Your task to perform on an android device: Open calendar and show me the first week of next month Image 0: 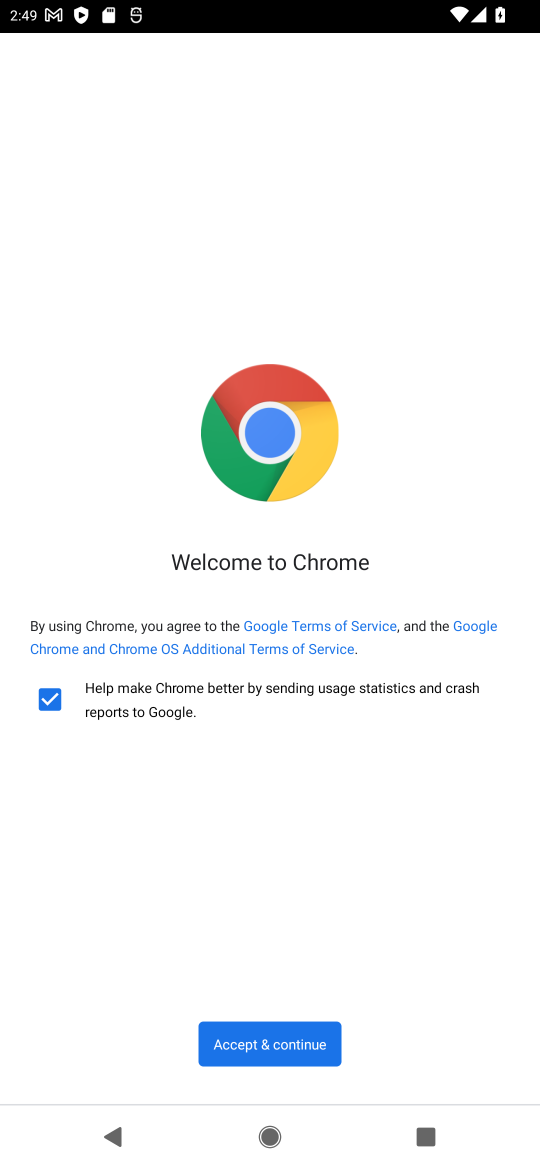
Step 0: click (350, 484)
Your task to perform on an android device: Open calendar and show me the first week of next month Image 1: 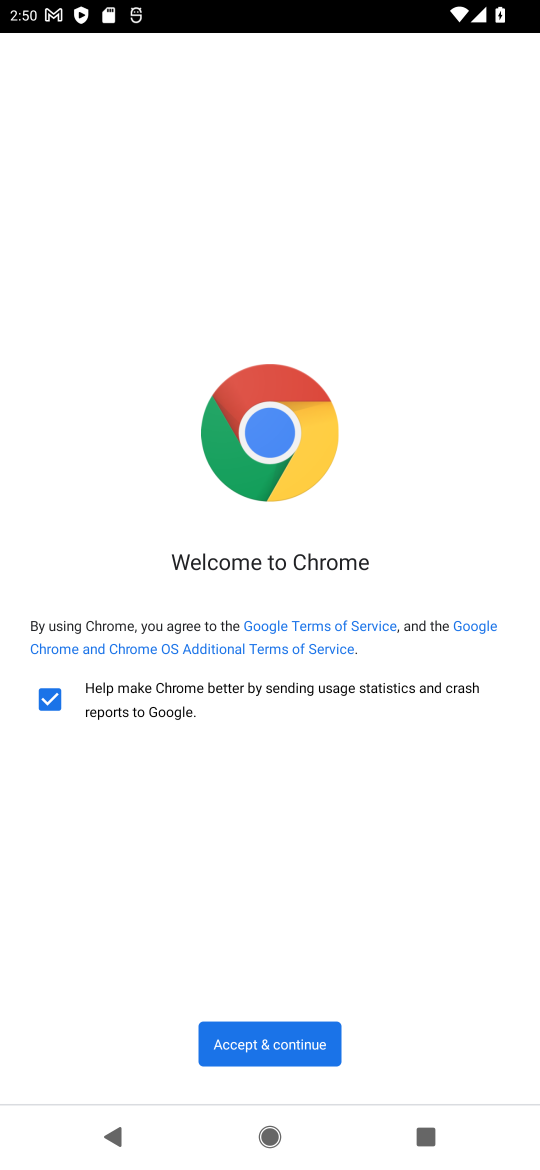
Step 1: click (243, 1046)
Your task to perform on an android device: Open calendar and show me the first week of next month Image 2: 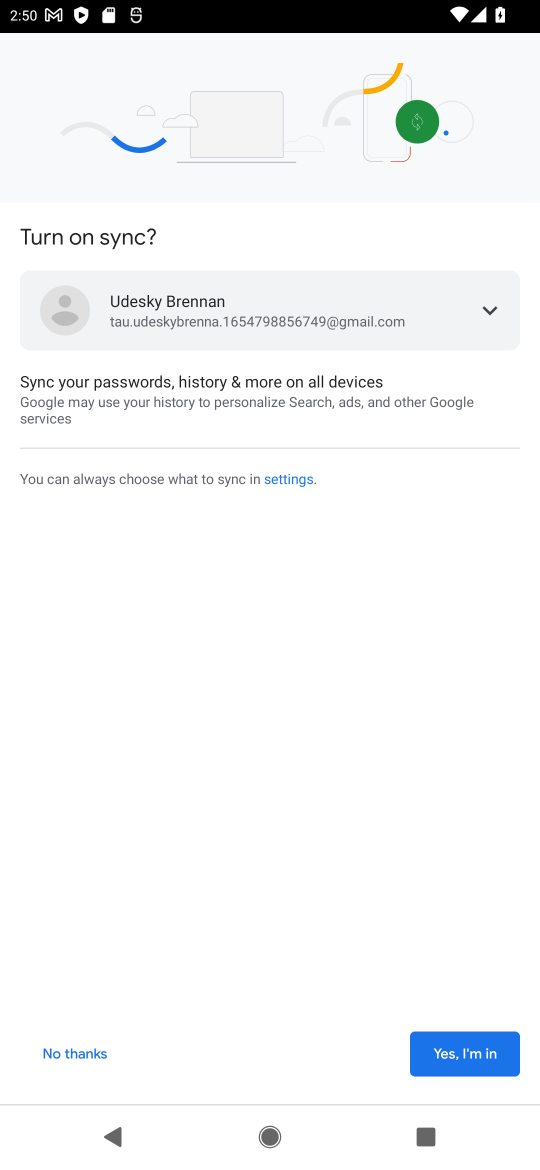
Step 2: press home button
Your task to perform on an android device: Open calendar and show me the first week of next month Image 3: 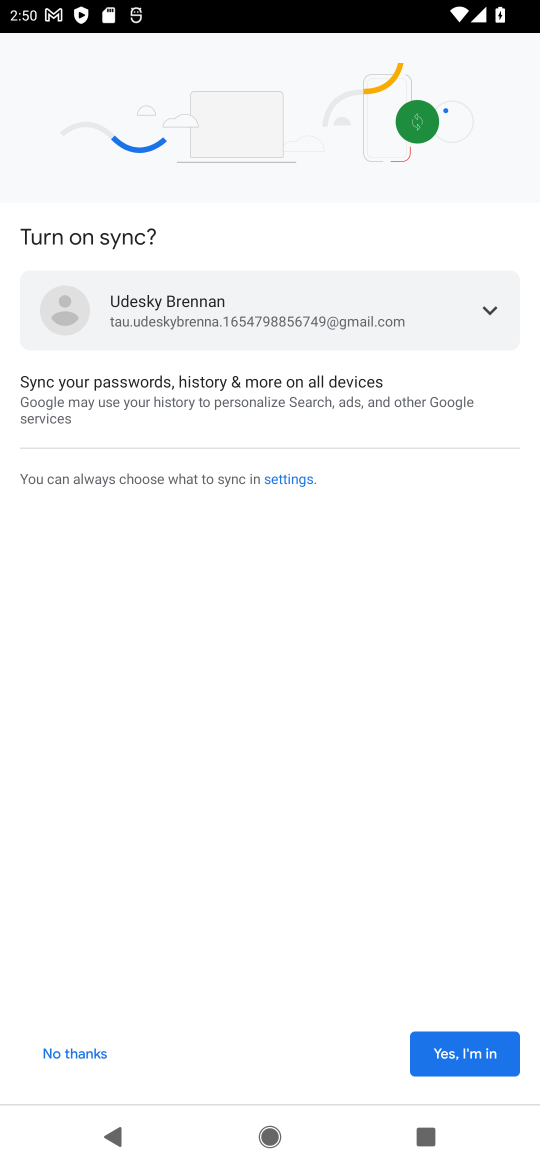
Step 3: press home button
Your task to perform on an android device: Open calendar and show me the first week of next month Image 4: 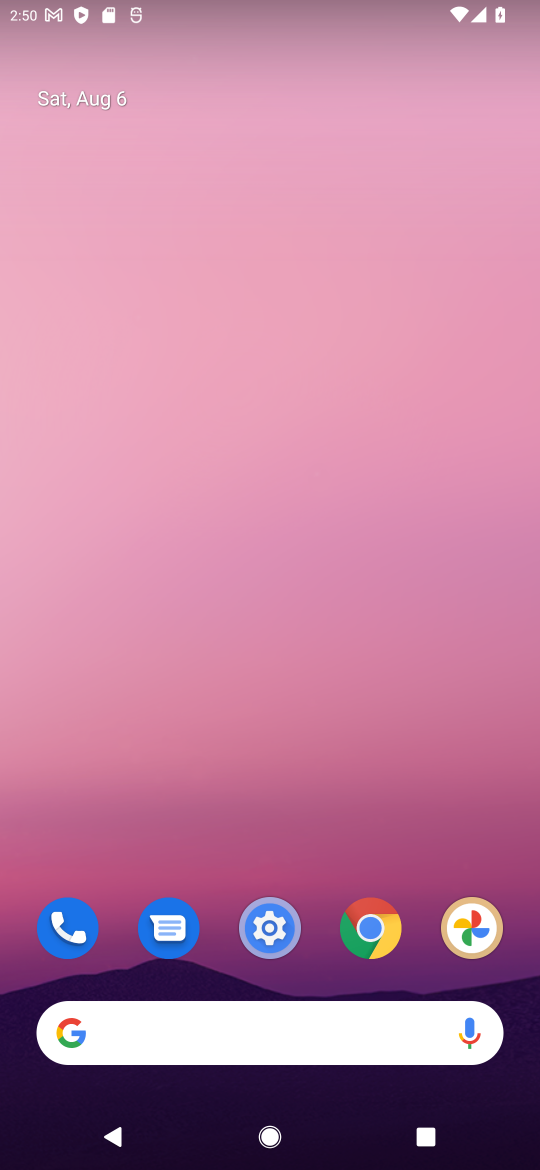
Step 4: drag from (229, 970) to (226, 223)
Your task to perform on an android device: Open calendar and show me the first week of next month Image 5: 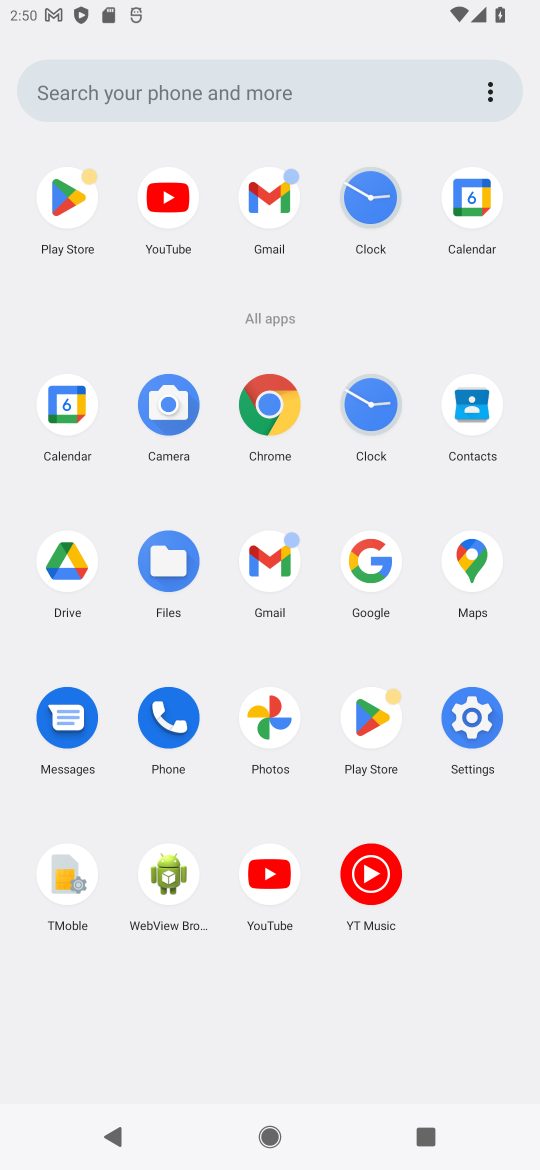
Step 5: click (74, 397)
Your task to perform on an android device: Open calendar and show me the first week of next month Image 6: 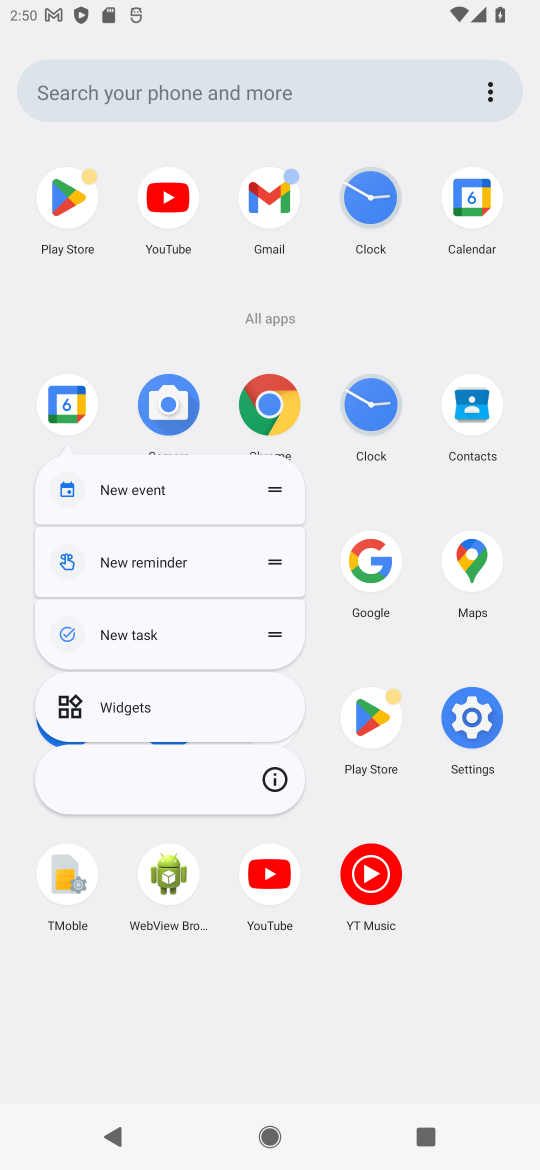
Step 6: click (269, 776)
Your task to perform on an android device: Open calendar and show me the first week of next month Image 7: 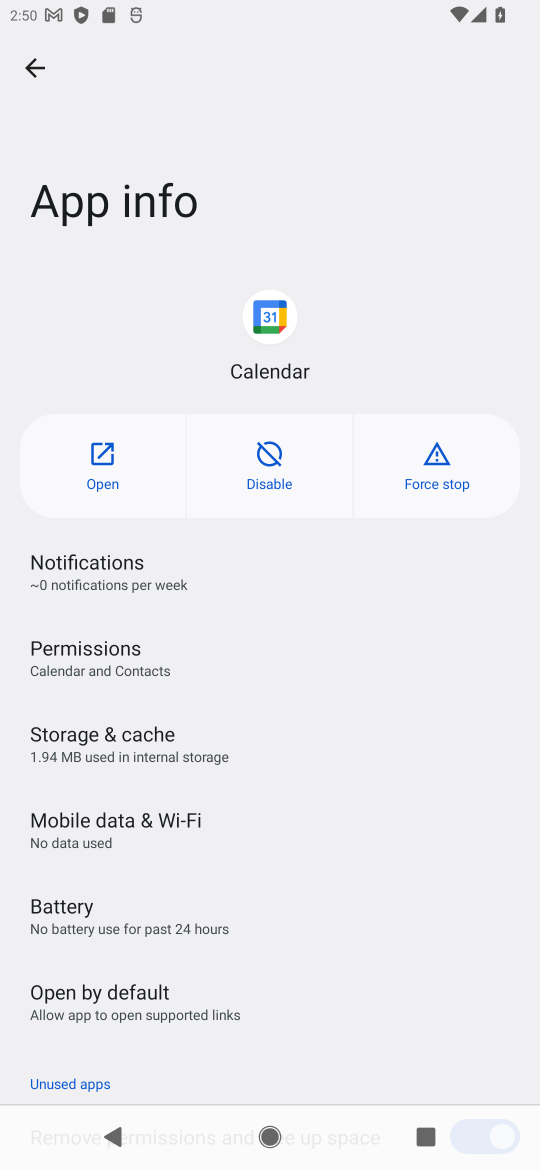
Step 7: click (102, 447)
Your task to perform on an android device: Open calendar and show me the first week of next month Image 8: 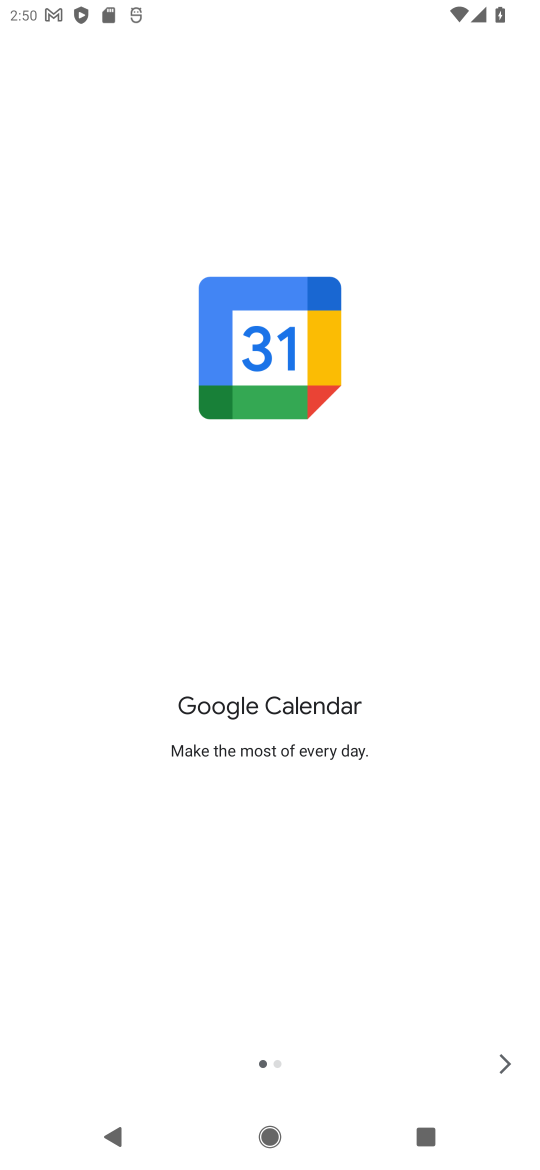
Step 8: drag from (301, 888) to (420, 395)
Your task to perform on an android device: Open calendar and show me the first week of next month Image 9: 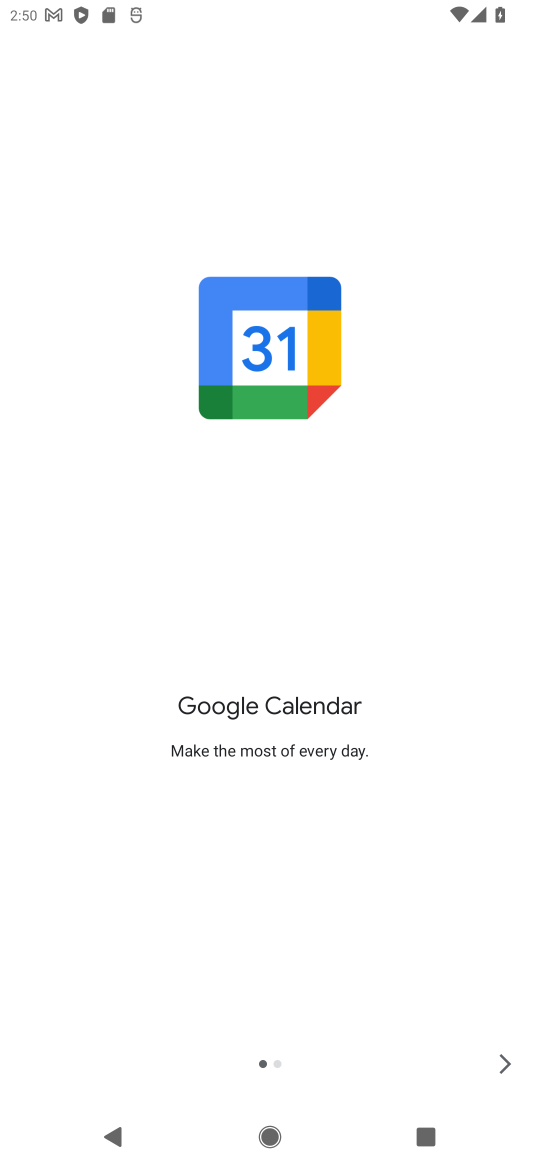
Step 9: drag from (327, 797) to (357, 468)
Your task to perform on an android device: Open calendar and show me the first week of next month Image 10: 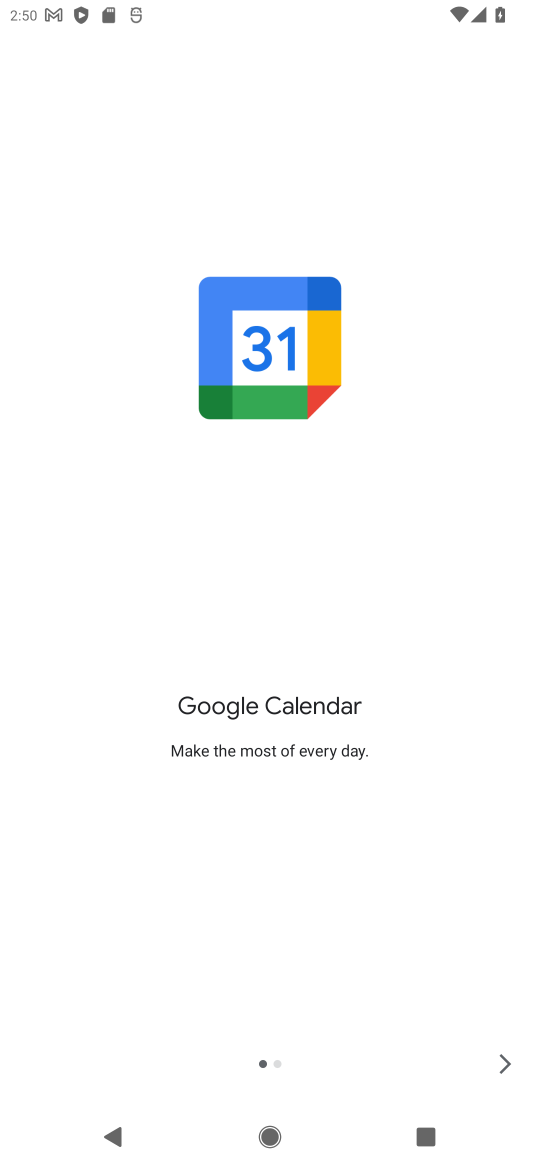
Step 10: click (507, 1045)
Your task to perform on an android device: Open calendar and show me the first week of next month Image 11: 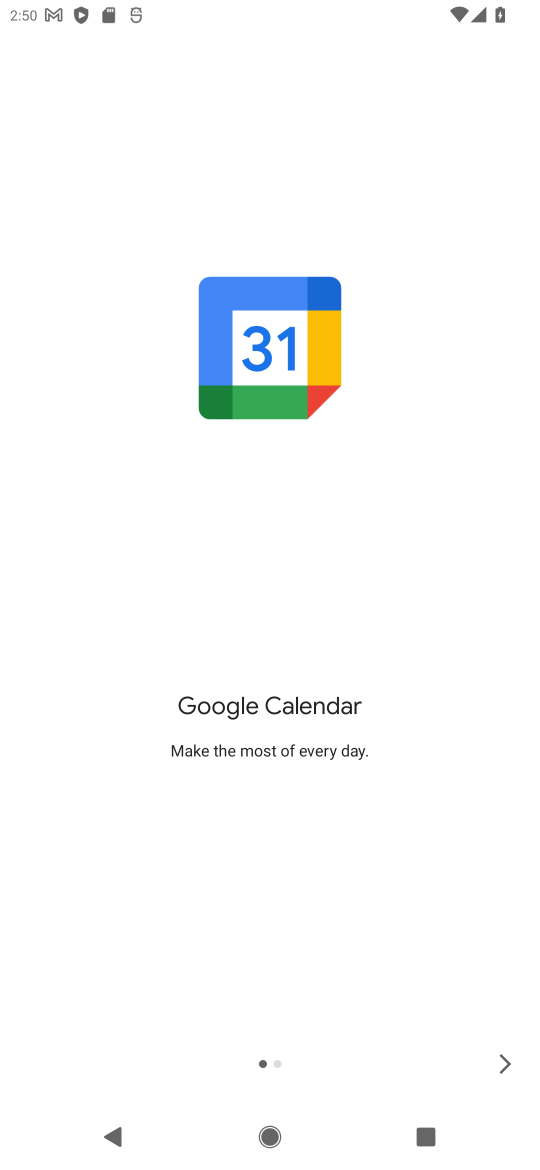
Step 11: click (504, 1048)
Your task to perform on an android device: Open calendar and show me the first week of next month Image 12: 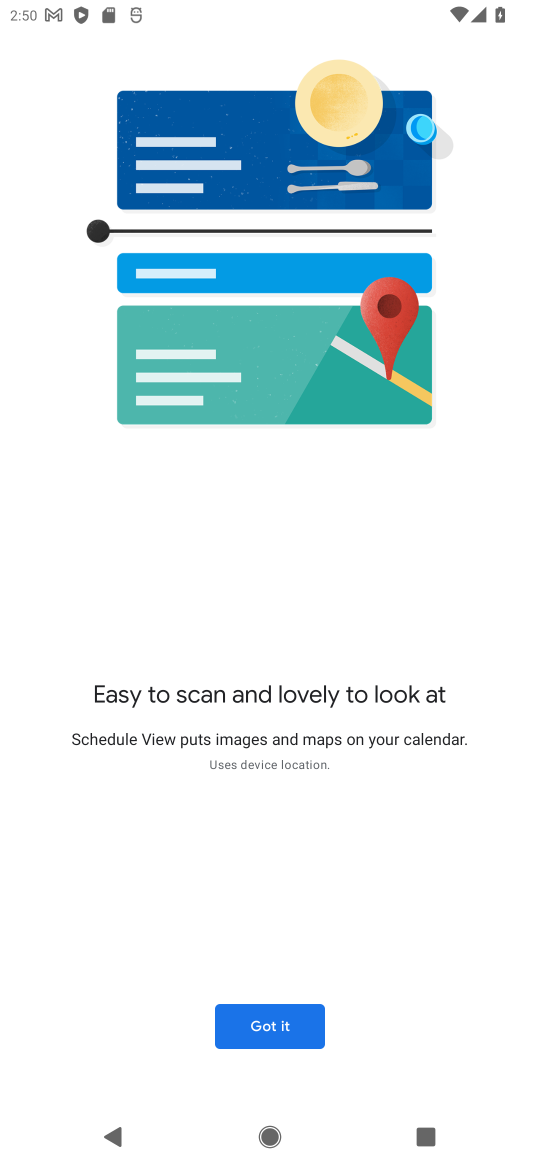
Step 12: click (503, 1048)
Your task to perform on an android device: Open calendar and show me the first week of next month Image 13: 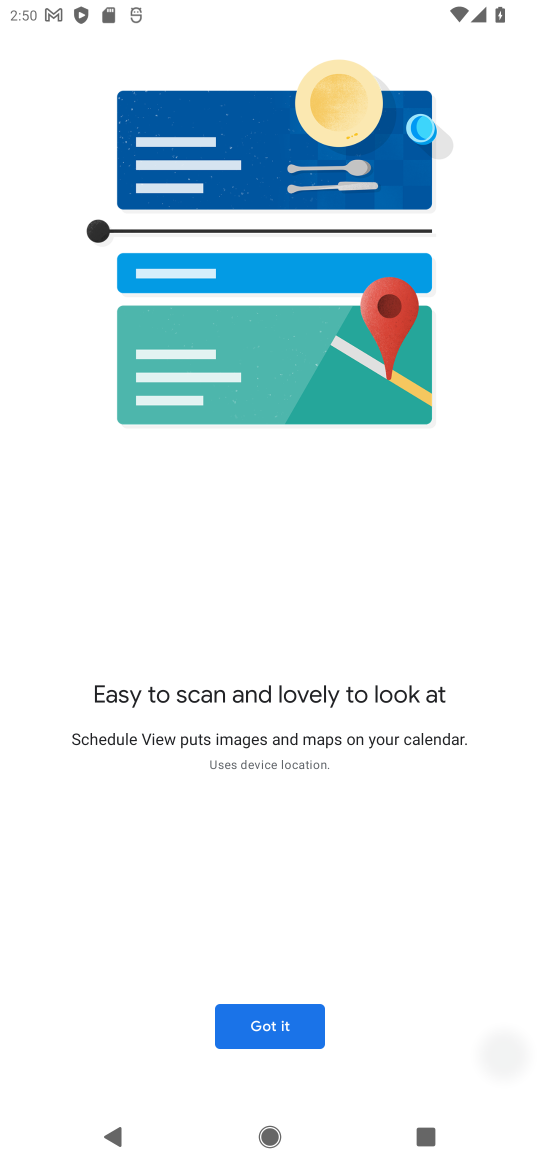
Step 13: click (260, 1011)
Your task to perform on an android device: Open calendar and show me the first week of next month Image 14: 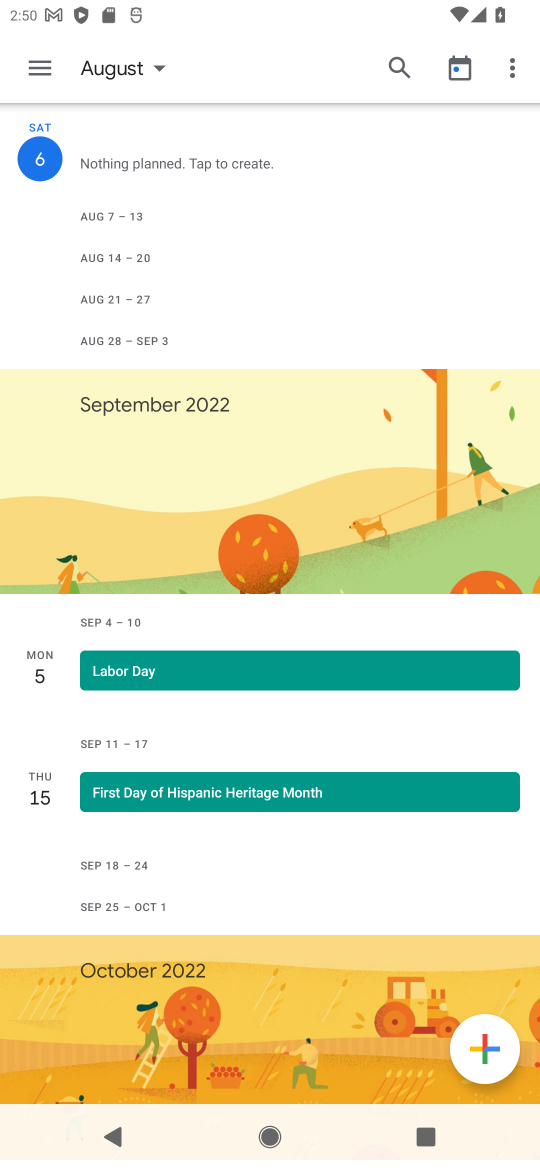
Step 14: click (135, 67)
Your task to perform on an android device: Open calendar and show me the first week of next month Image 15: 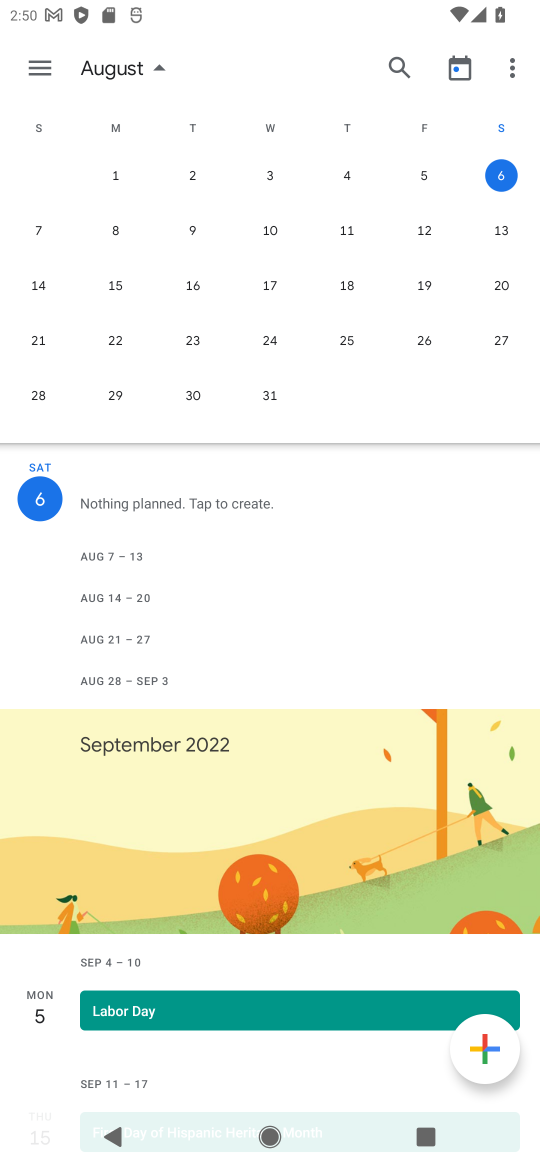
Step 15: click (461, 74)
Your task to perform on an android device: Open calendar and show me the first week of next month Image 16: 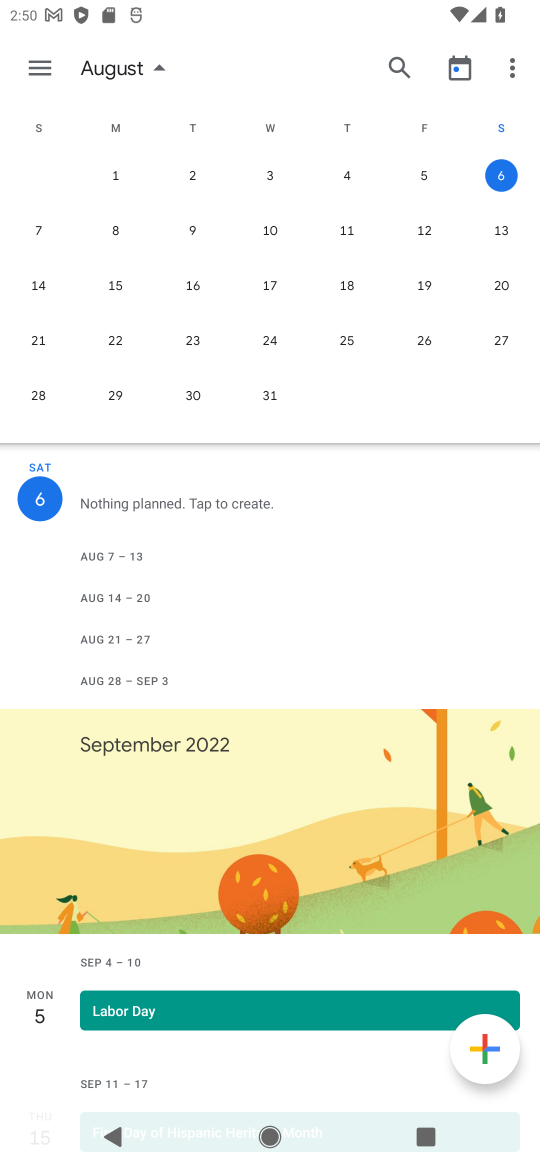
Step 16: drag from (472, 280) to (1, 350)
Your task to perform on an android device: Open calendar and show me the first week of next month Image 17: 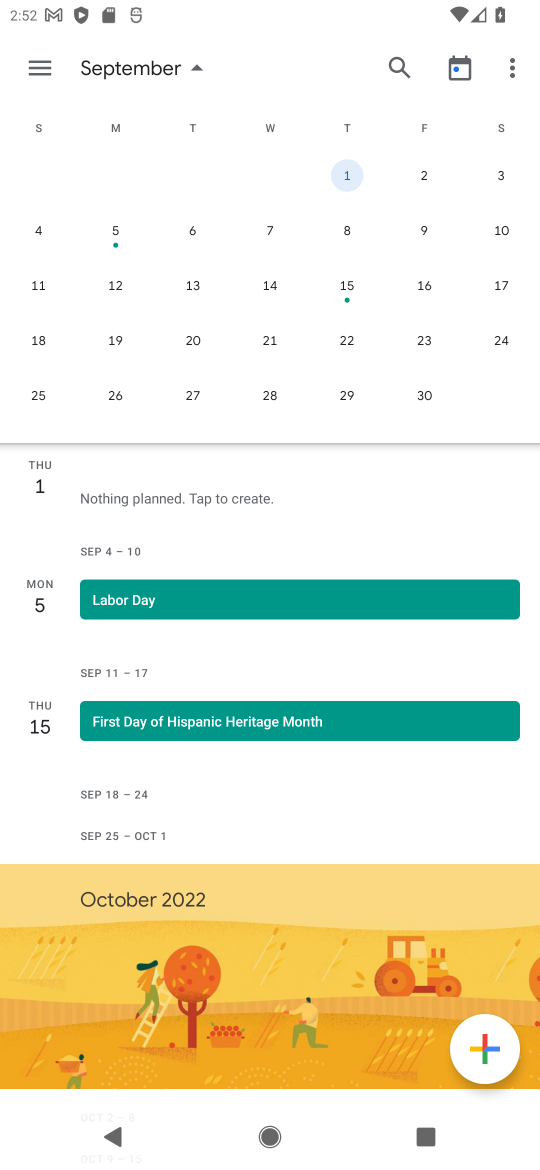
Step 17: click (504, 175)
Your task to perform on an android device: Open calendar and show me the first week of next month Image 18: 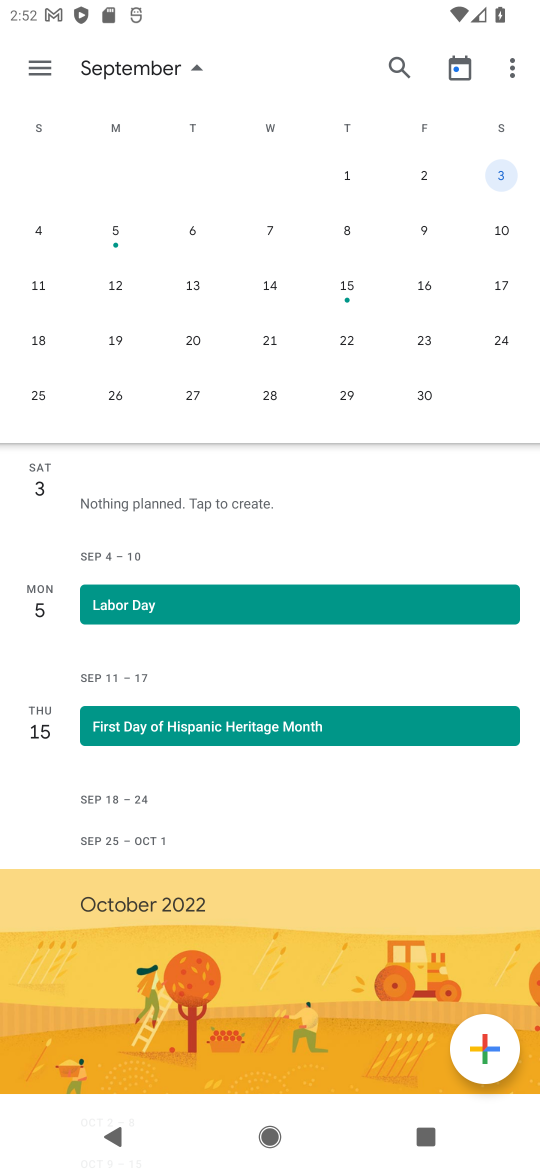
Step 18: task complete